Your task to perform on an android device: Go to calendar. Show me events next week Image 0: 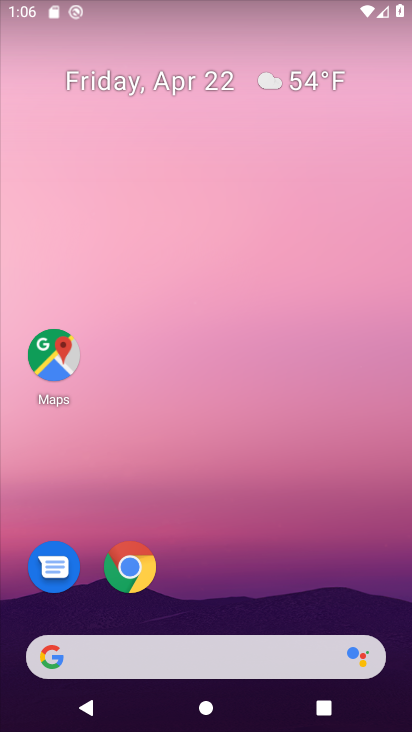
Step 0: drag from (267, 602) to (297, 148)
Your task to perform on an android device: Go to calendar. Show me events next week Image 1: 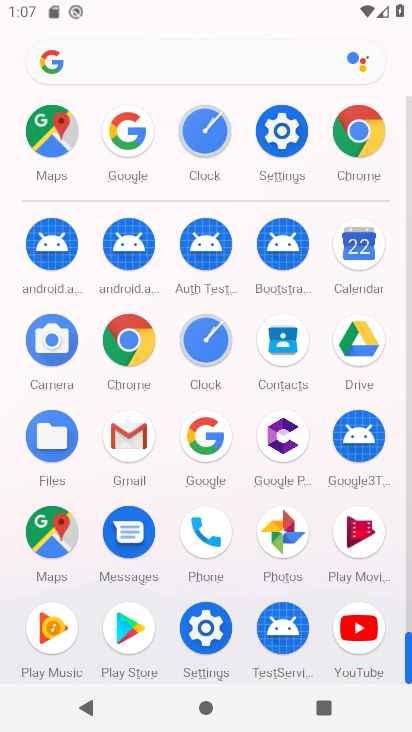
Step 1: click (380, 268)
Your task to perform on an android device: Go to calendar. Show me events next week Image 2: 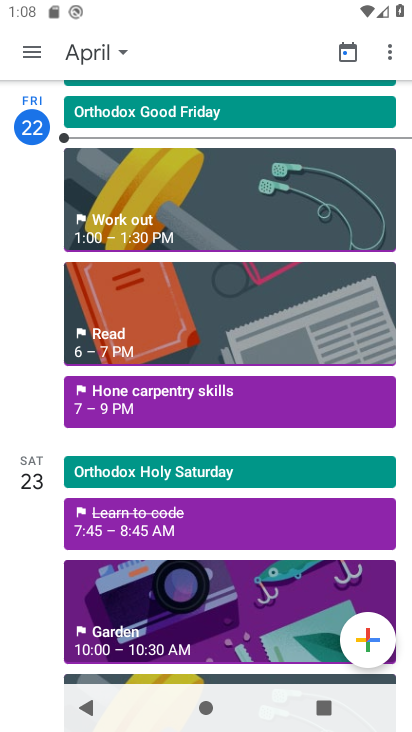
Step 2: click (110, 52)
Your task to perform on an android device: Go to calendar. Show me events next week Image 3: 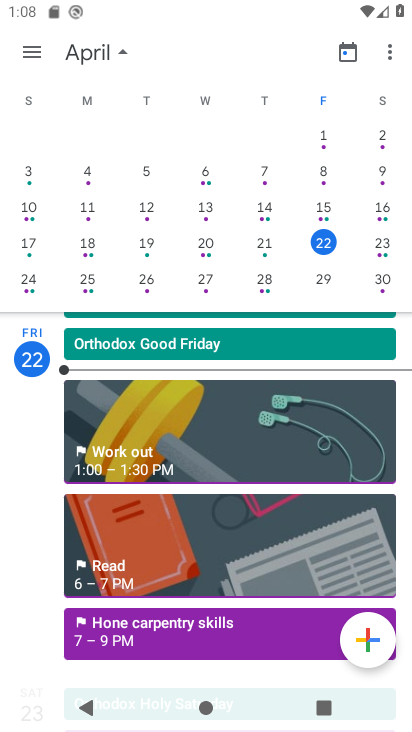
Step 3: click (30, 288)
Your task to perform on an android device: Go to calendar. Show me events next week Image 4: 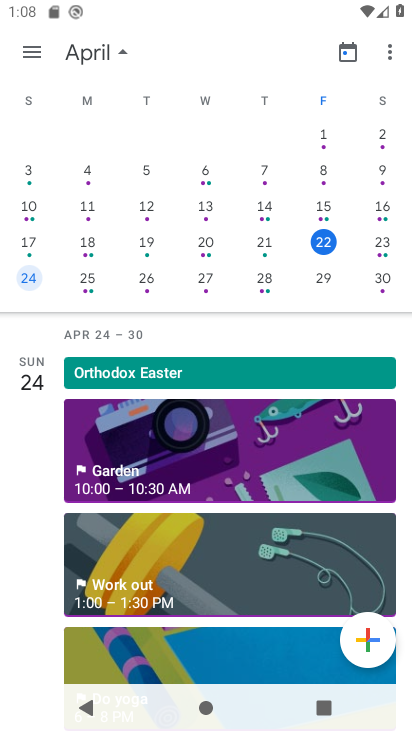
Step 4: task complete